Your task to perform on an android device: Open the stopwatch Image 0: 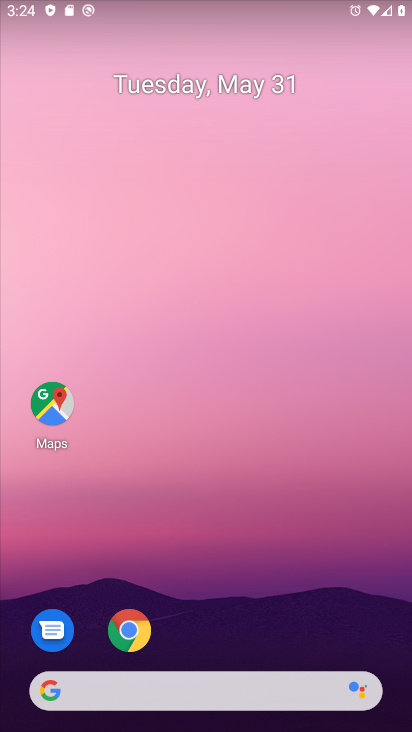
Step 0: drag from (242, 699) to (162, 18)
Your task to perform on an android device: Open the stopwatch Image 1: 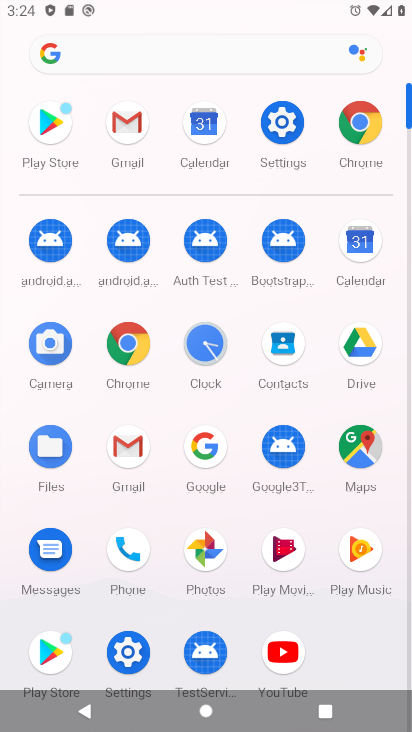
Step 1: click (212, 347)
Your task to perform on an android device: Open the stopwatch Image 2: 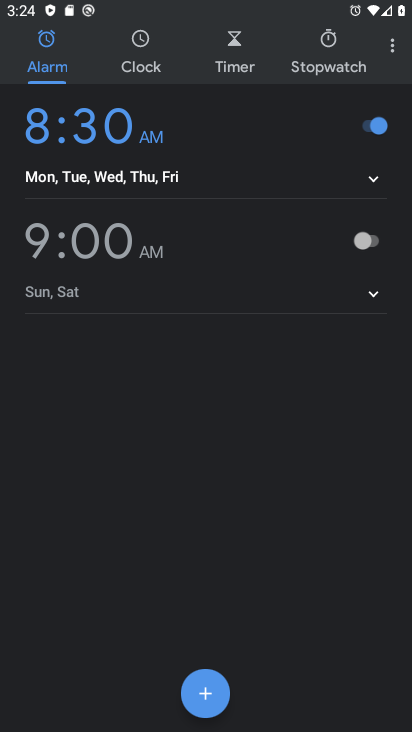
Step 2: click (328, 47)
Your task to perform on an android device: Open the stopwatch Image 3: 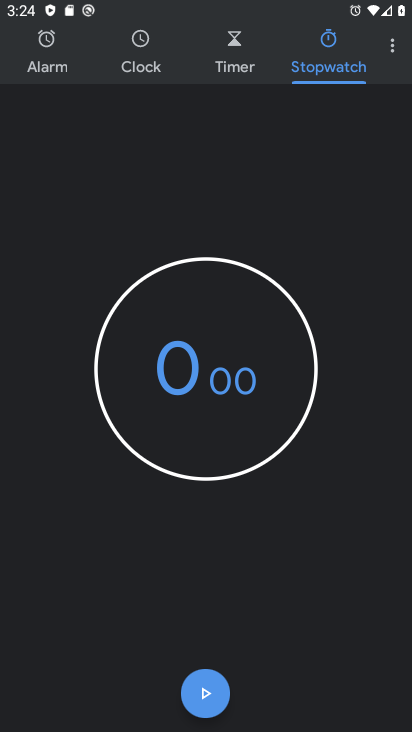
Step 3: click (193, 715)
Your task to perform on an android device: Open the stopwatch Image 4: 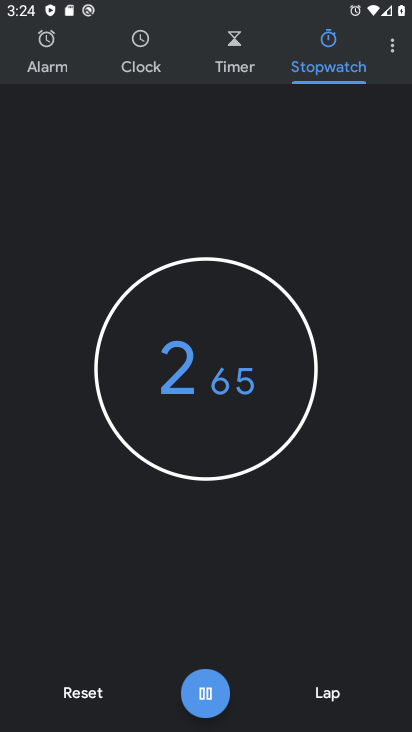
Step 4: task complete